Your task to perform on an android device: turn on airplane mode Image 0: 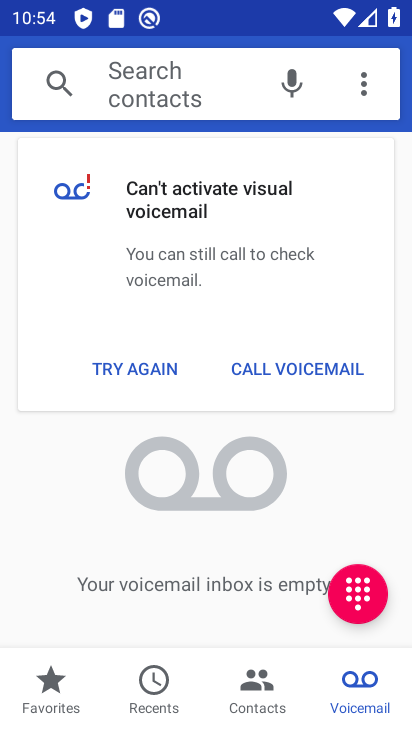
Step 0: press home button
Your task to perform on an android device: turn on airplane mode Image 1: 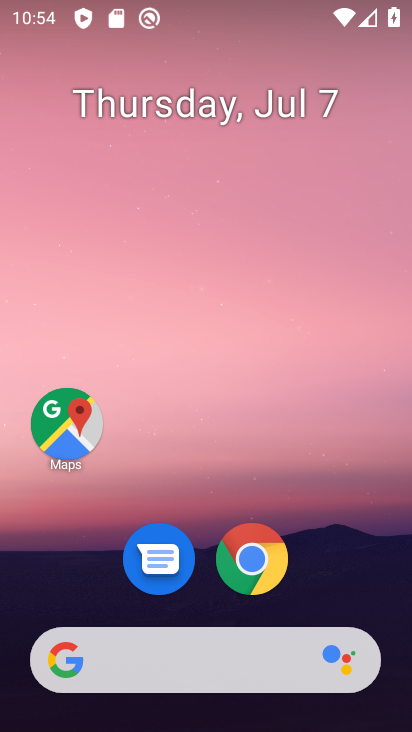
Step 1: drag from (353, 578) to (355, 93)
Your task to perform on an android device: turn on airplane mode Image 2: 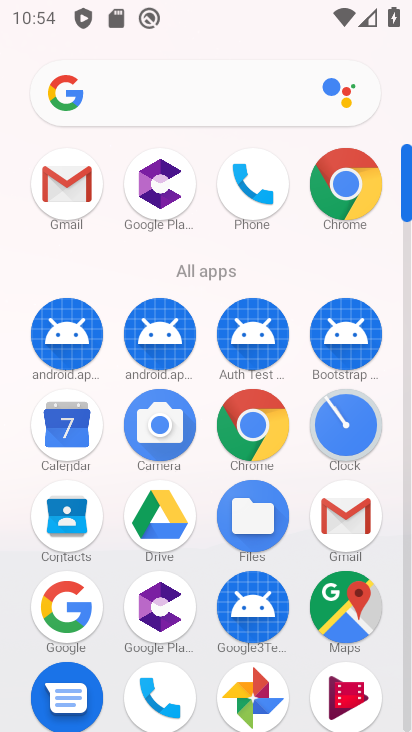
Step 2: drag from (385, 557) to (392, 260)
Your task to perform on an android device: turn on airplane mode Image 3: 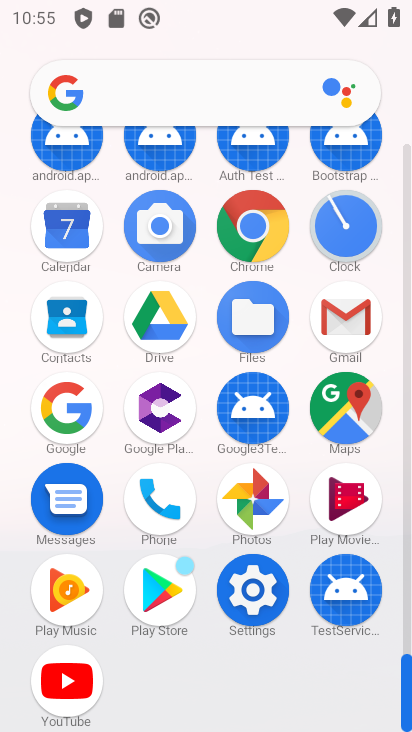
Step 3: click (157, 517)
Your task to perform on an android device: turn on airplane mode Image 4: 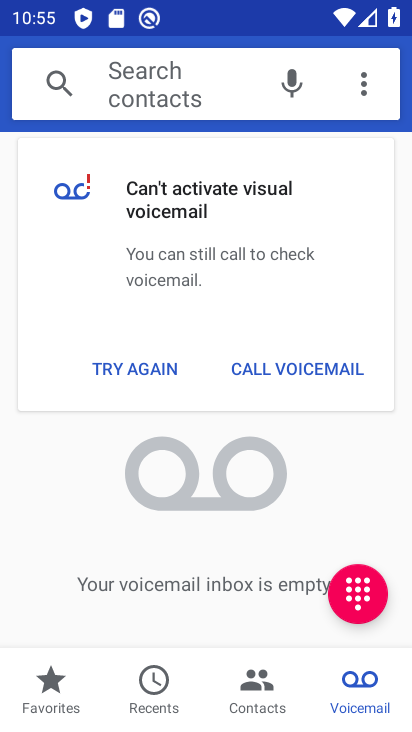
Step 4: task complete